Your task to perform on an android device: Open Wikipedia Image 0: 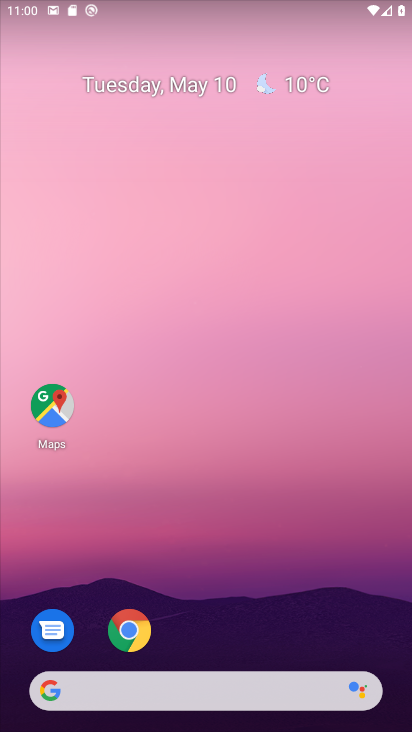
Step 0: click (132, 633)
Your task to perform on an android device: Open Wikipedia Image 1: 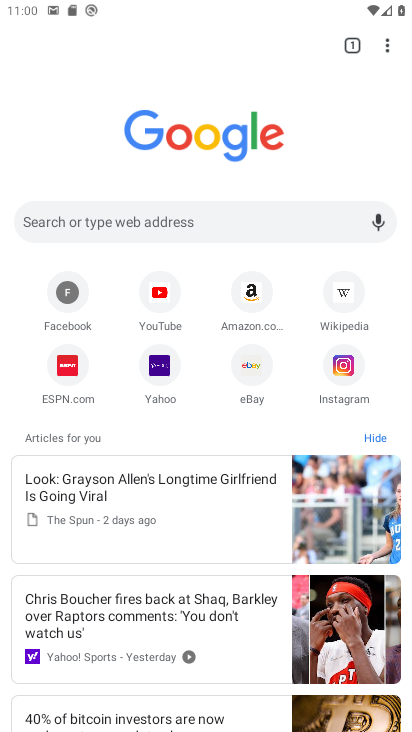
Step 1: click (341, 298)
Your task to perform on an android device: Open Wikipedia Image 2: 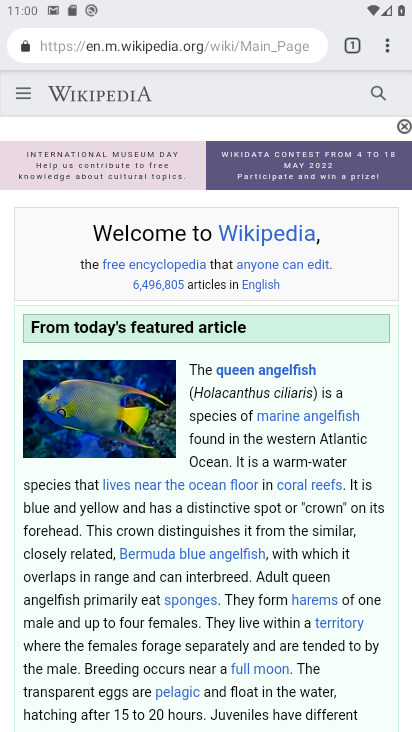
Step 2: task complete